Your task to perform on an android device: Open calendar and show me the fourth week of next month Image 0: 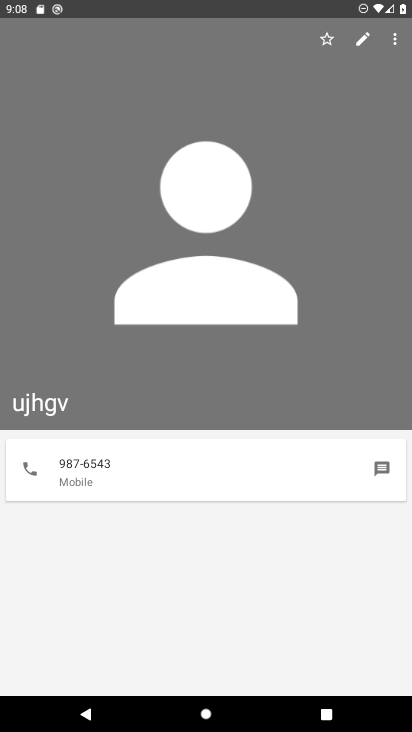
Step 0: press home button
Your task to perform on an android device: Open calendar and show me the fourth week of next month Image 1: 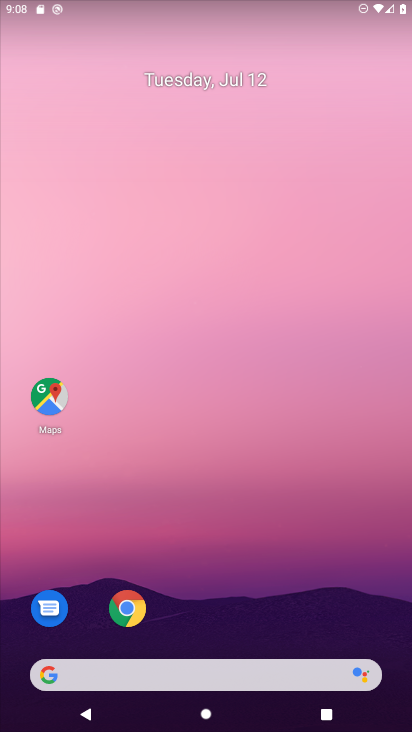
Step 1: click (189, 85)
Your task to perform on an android device: Open calendar and show me the fourth week of next month Image 2: 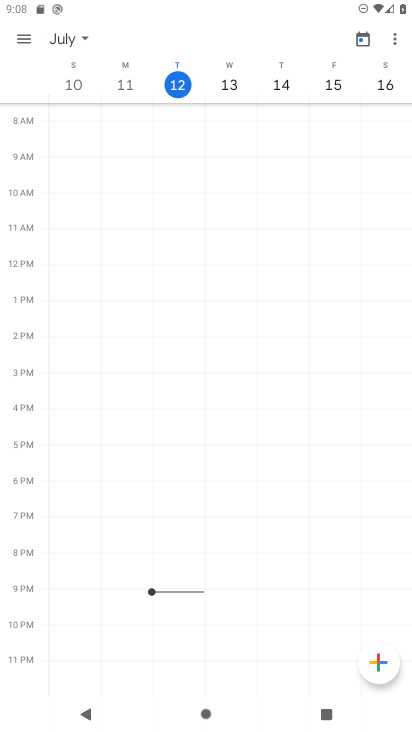
Step 2: click (57, 35)
Your task to perform on an android device: Open calendar and show me the fourth week of next month Image 3: 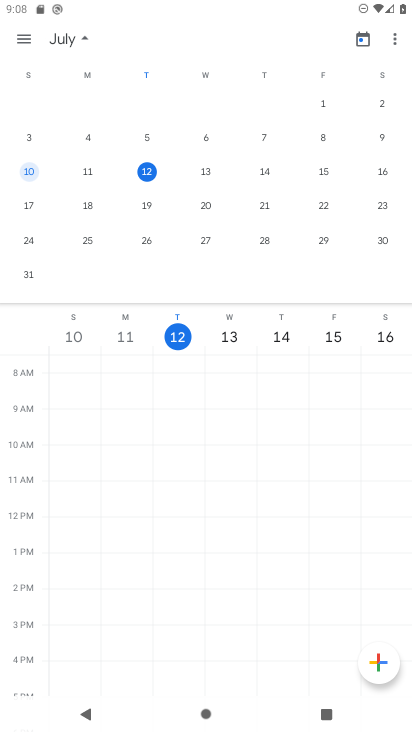
Step 3: click (57, 35)
Your task to perform on an android device: Open calendar and show me the fourth week of next month Image 4: 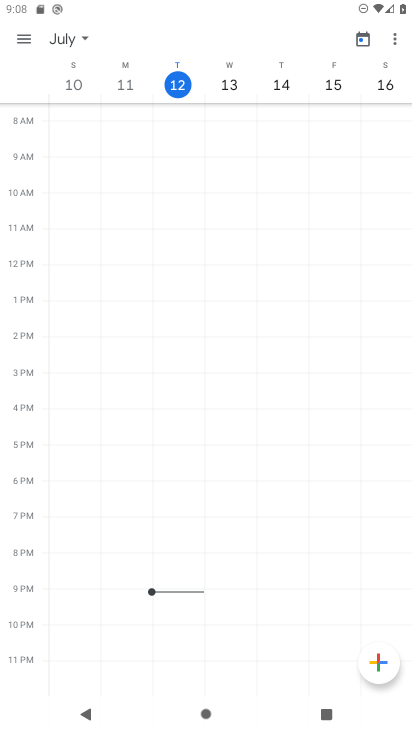
Step 4: click (57, 35)
Your task to perform on an android device: Open calendar and show me the fourth week of next month Image 5: 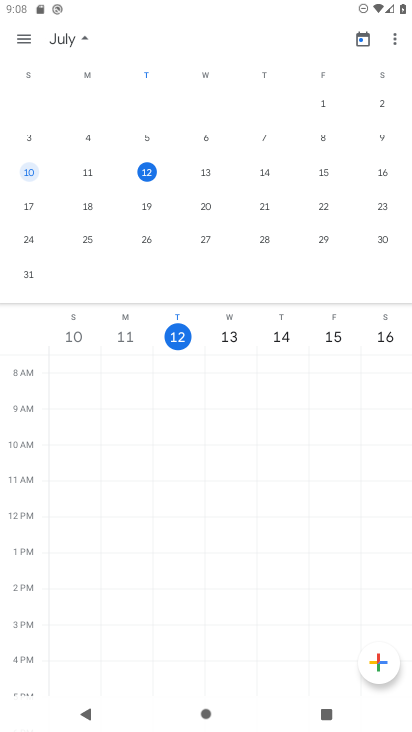
Step 5: drag from (362, 269) to (63, 257)
Your task to perform on an android device: Open calendar and show me the fourth week of next month Image 6: 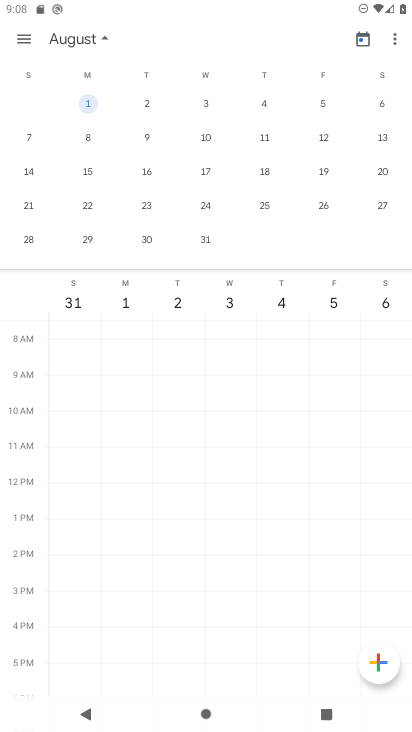
Step 6: click (213, 210)
Your task to perform on an android device: Open calendar and show me the fourth week of next month Image 7: 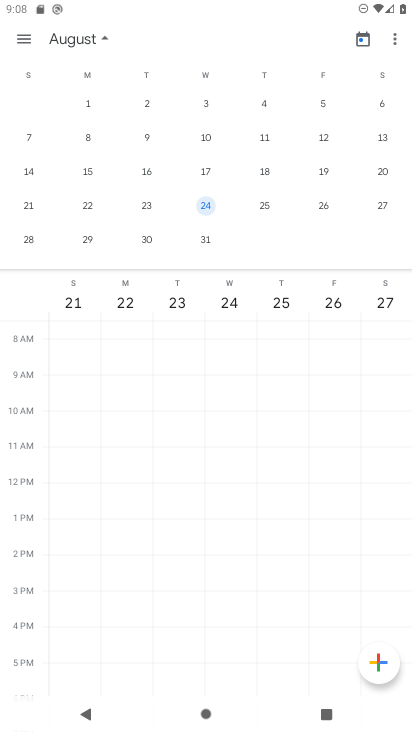
Step 7: task complete